Your task to perform on an android device: Open the Play Movies app and select the watchlist tab. Image 0: 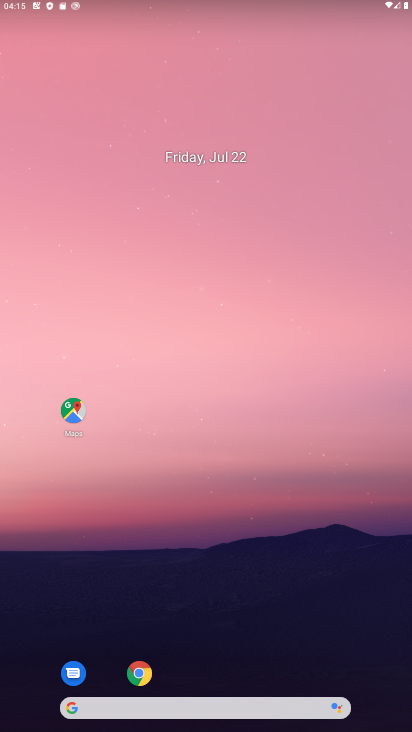
Step 0: drag from (224, 96) to (203, 17)
Your task to perform on an android device: Open the Play Movies app and select the watchlist tab. Image 1: 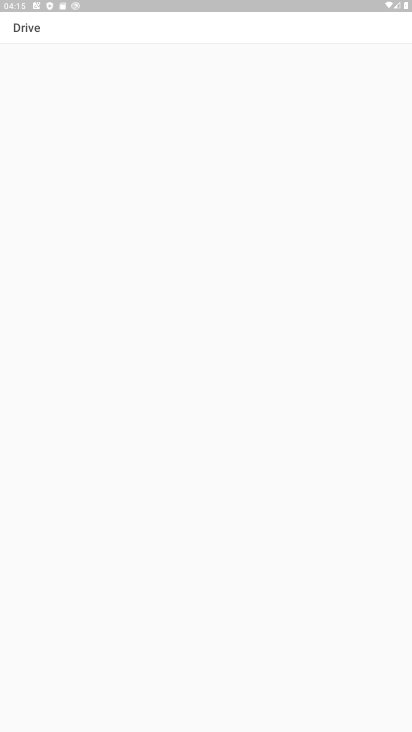
Step 1: press home button
Your task to perform on an android device: Open the Play Movies app and select the watchlist tab. Image 2: 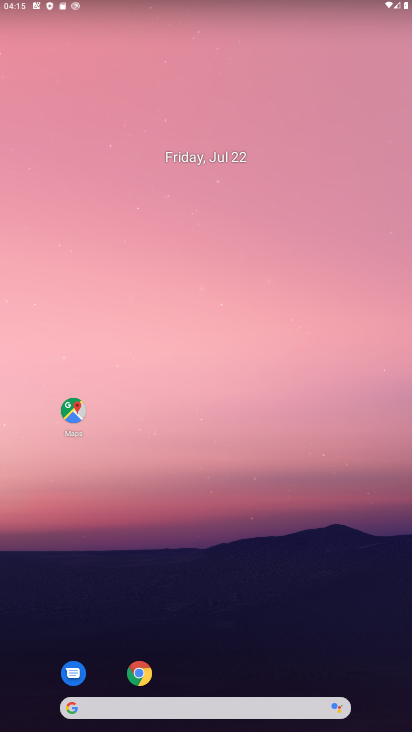
Step 2: drag from (208, 674) to (203, 107)
Your task to perform on an android device: Open the Play Movies app and select the watchlist tab. Image 3: 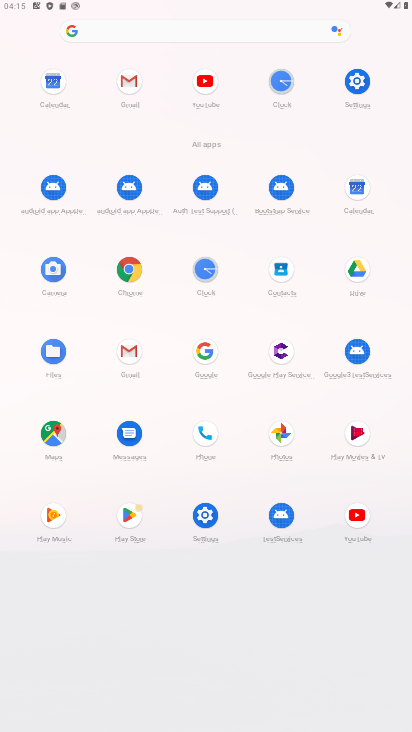
Step 3: click (356, 429)
Your task to perform on an android device: Open the Play Movies app and select the watchlist tab. Image 4: 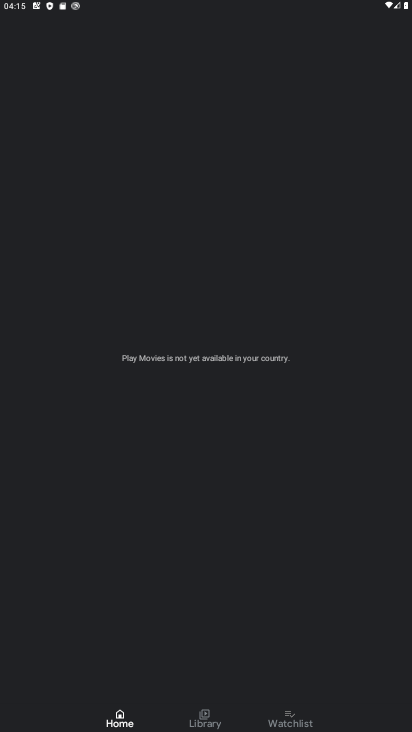
Step 4: click (287, 714)
Your task to perform on an android device: Open the Play Movies app and select the watchlist tab. Image 5: 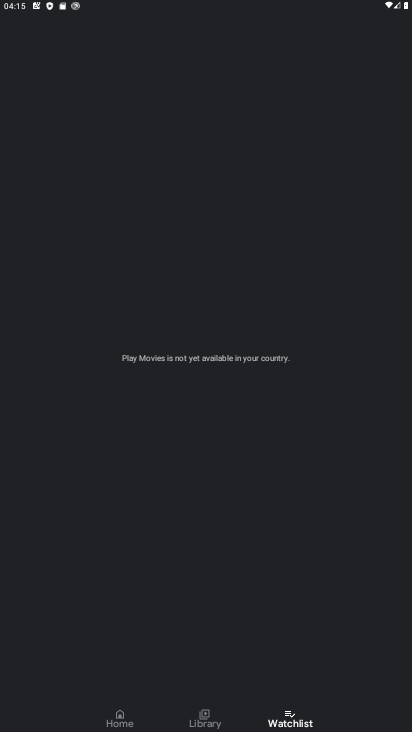
Step 5: task complete